Your task to perform on an android device: What's the weather today? Image 0: 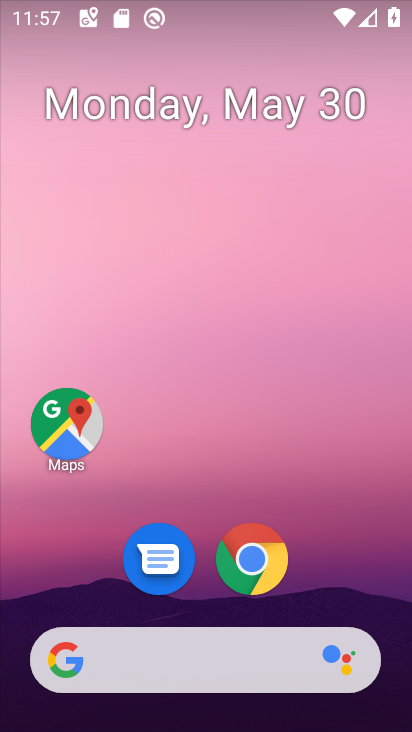
Step 0: click (245, 657)
Your task to perform on an android device: What's the weather today? Image 1: 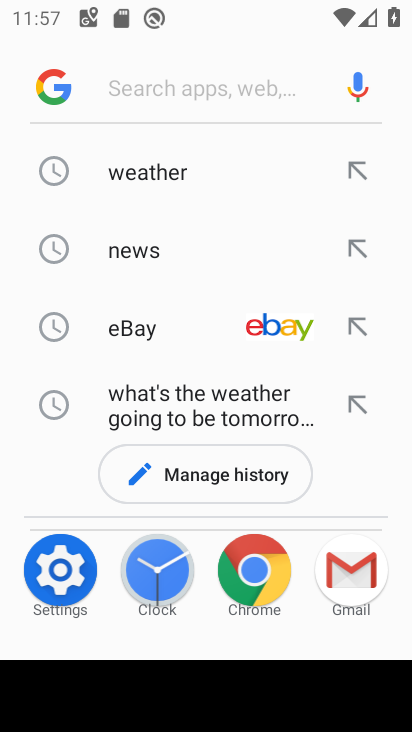
Step 1: click (175, 173)
Your task to perform on an android device: What's the weather today? Image 2: 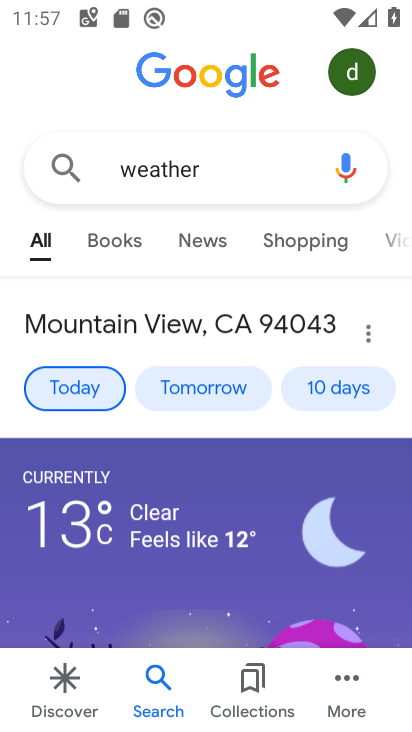
Step 2: task complete